Your task to perform on an android device: toggle show notifications on the lock screen Image 0: 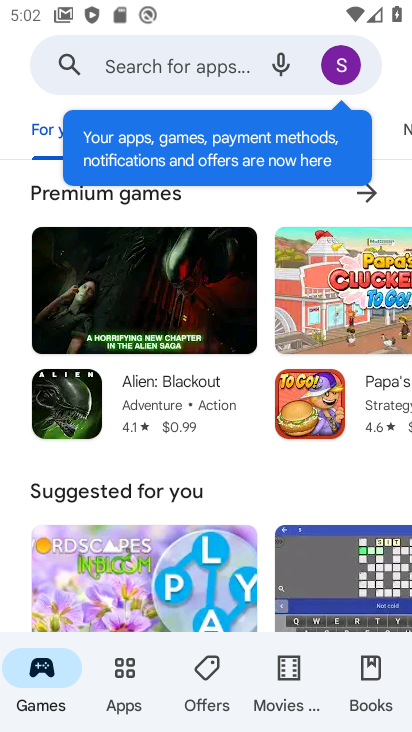
Step 0: press back button
Your task to perform on an android device: toggle show notifications on the lock screen Image 1: 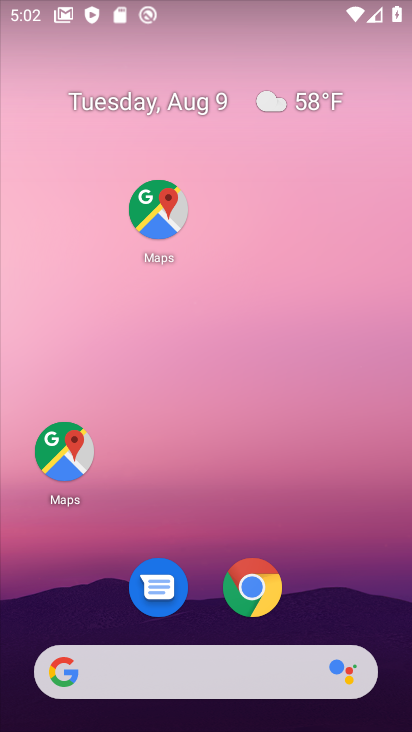
Step 1: drag from (242, 386) to (238, 8)
Your task to perform on an android device: toggle show notifications on the lock screen Image 2: 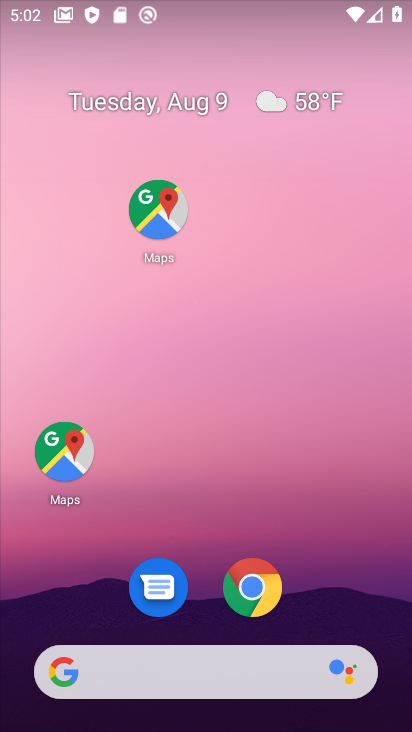
Step 2: drag from (244, 548) to (224, 27)
Your task to perform on an android device: toggle show notifications on the lock screen Image 3: 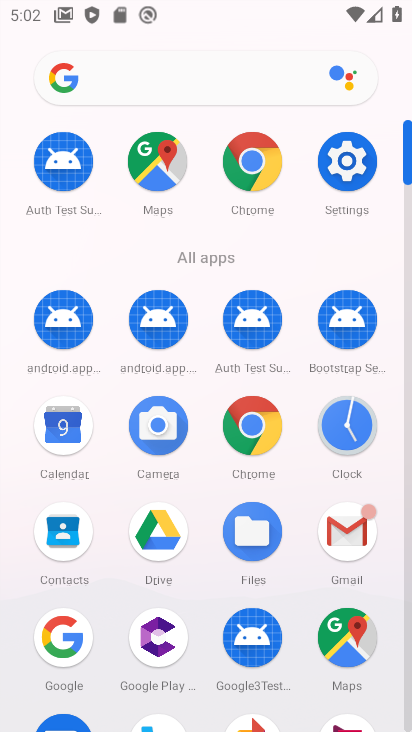
Step 3: drag from (224, 542) to (190, 88)
Your task to perform on an android device: toggle show notifications on the lock screen Image 4: 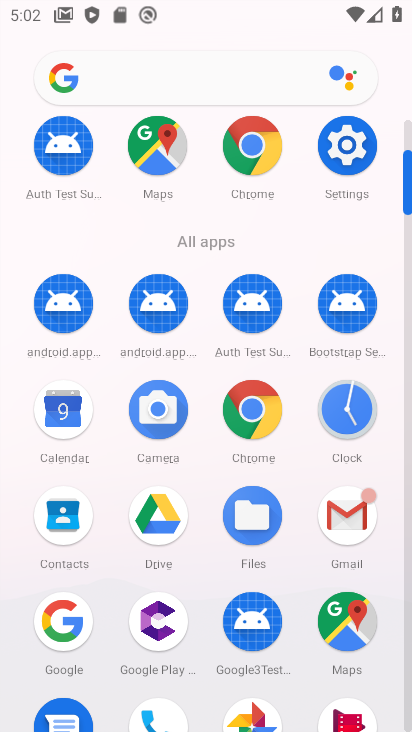
Step 4: click (343, 134)
Your task to perform on an android device: toggle show notifications on the lock screen Image 5: 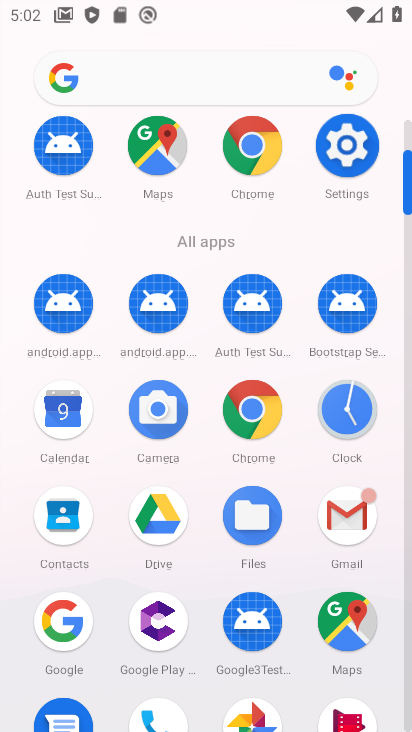
Step 5: click (346, 128)
Your task to perform on an android device: toggle show notifications on the lock screen Image 6: 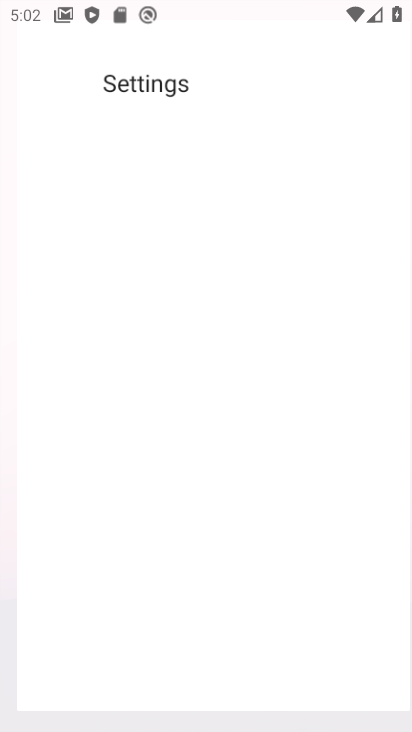
Step 6: click (346, 128)
Your task to perform on an android device: toggle show notifications on the lock screen Image 7: 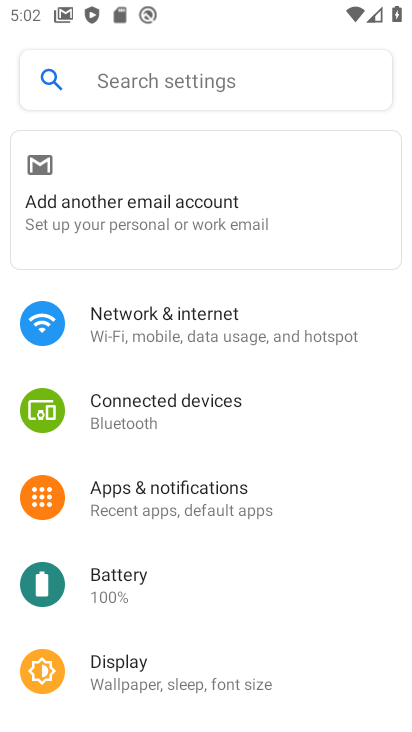
Step 7: click (151, 494)
Your task to perform on an android device: toggle show notifications on the lock screen Image 8: 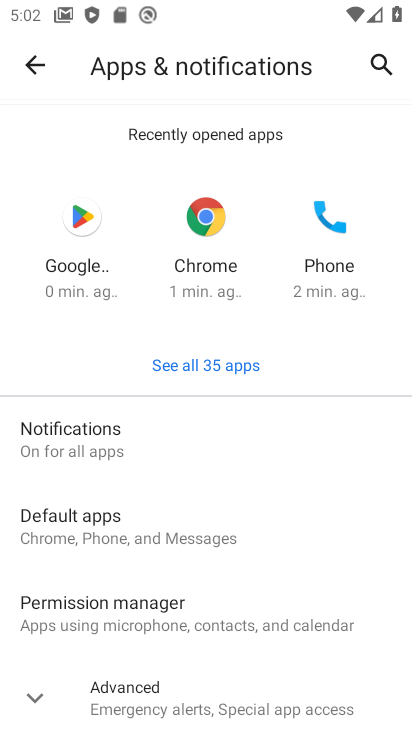
Step 8: click (48, 428)
Your task to perform on an android device: toggle show notifications on the lock screen Image 9: 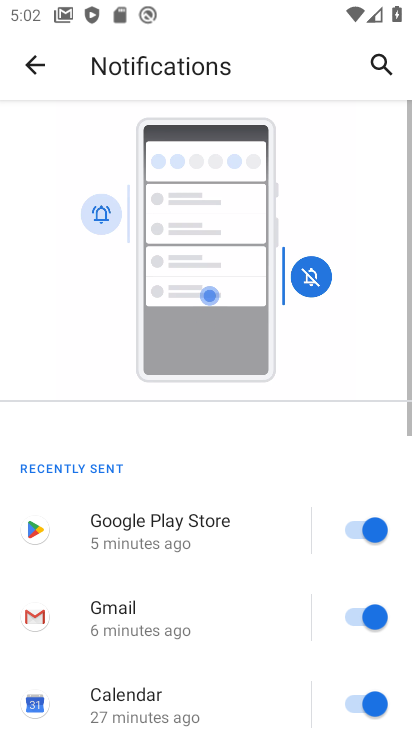
Step 9: drag from (242, 564) to (214, 125)
Your task to perform on an android device: toggle show notifications on the lock screen Image 10: 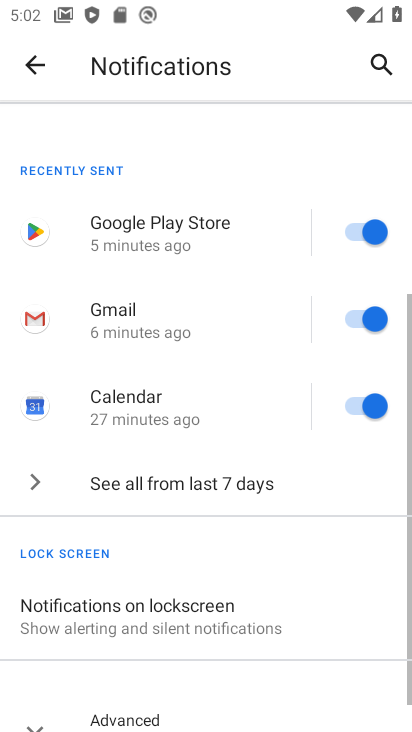
Step 10: drag from (228, 543) to (200, 159)
Your task to perform on an android device: toggle show notifications on the lock screen Image 11: 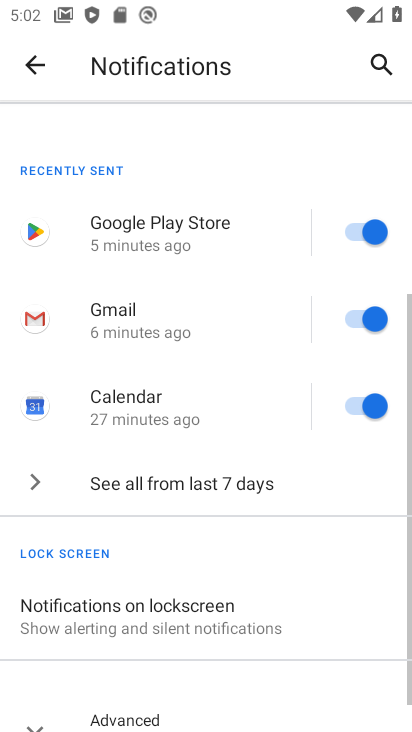
Step 11: drag from (269, 603) to (249, 280)
Your task to perform on an android device: toggle show notifications on the lock screen Image 12: 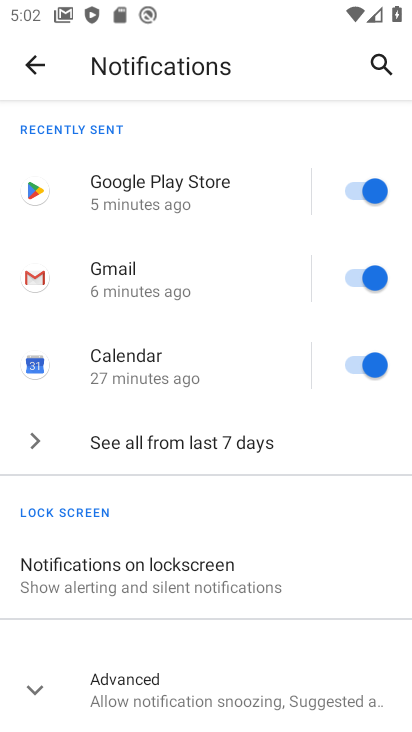
Step 12: click (142, 571)
Your task to perform on an android device: toggle show notifications on the lock screen Image 13: 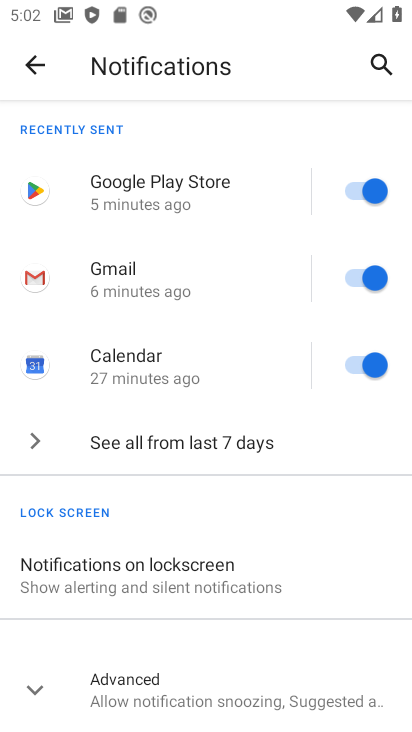
Step 13: click (142, 571)
Your task to perform on an android device: toggle show notifications on the lock screen Image 14: 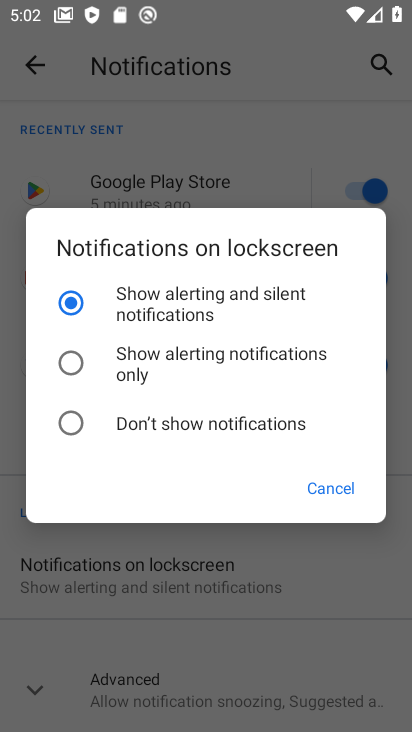
Step 14: click (141, 570)
Your task to perform on an android device: toggle show notifications on the lock screen Image 15: 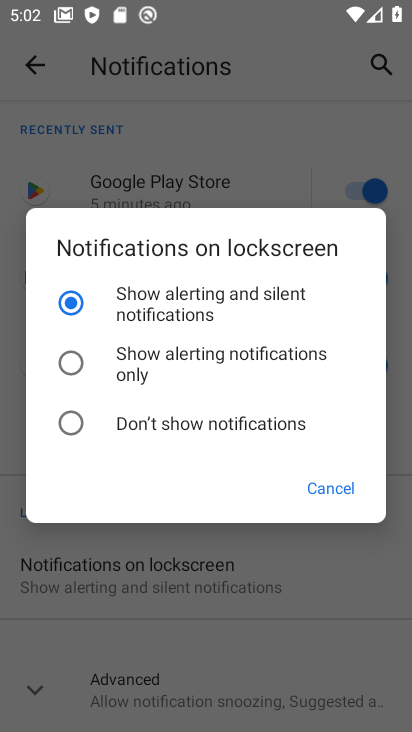
Step 15: click (141, 570)
Your task to perform on an android device: toggle show notifications on the lock screen Image 16: 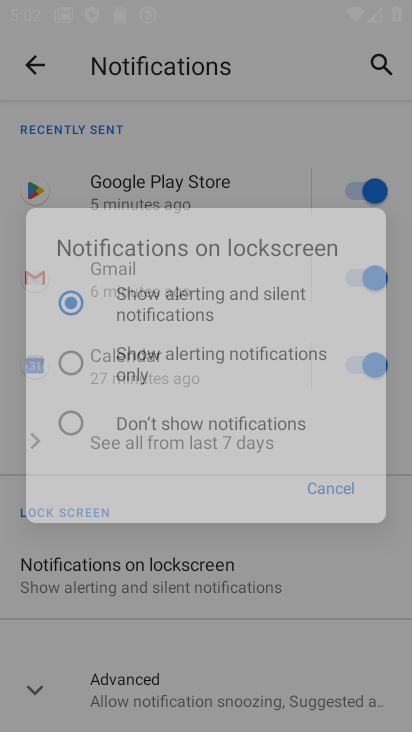
Step 16: click (143, 571)
Your task to perform on an android device: toggle show notifications on the lock screen Image 17: 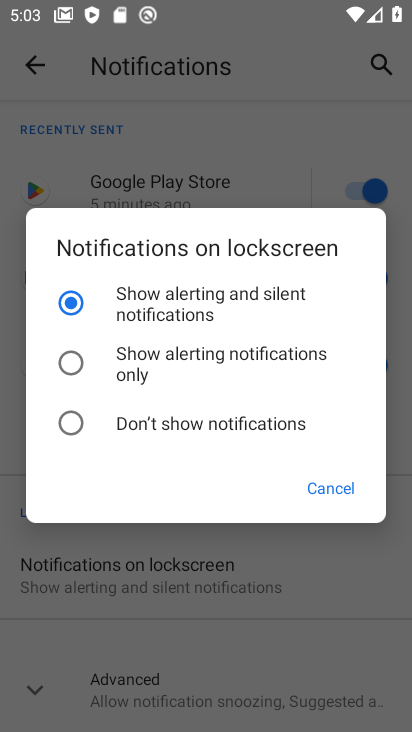
Step 17: click (73, 389)
Your task to perform on an android device: toggle show notifications on the lock screen Image 18: 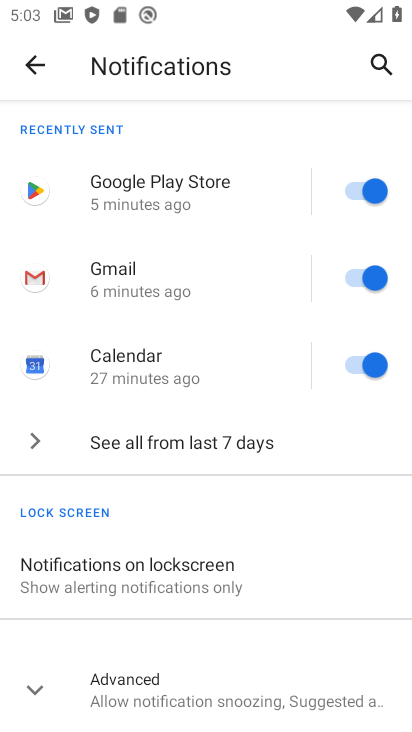
Step 18: click (126, 576)
Your task to perform on an android device: toggle show notifications on the lock screen Image 19: 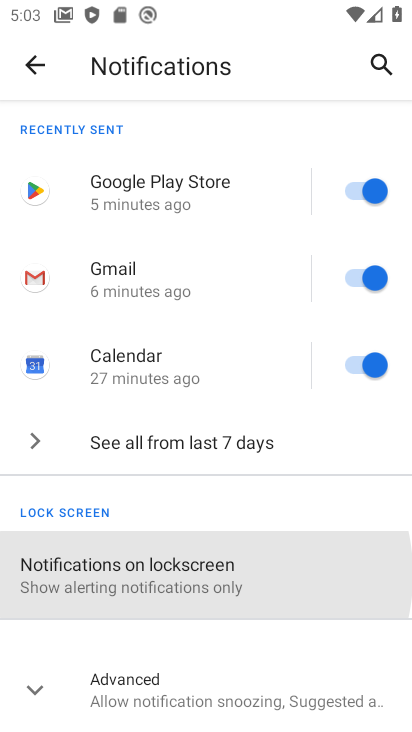
Step 19: click (125, 577)
Your task to perform on an android device: toggle show notifications on the lock screen Image 20: 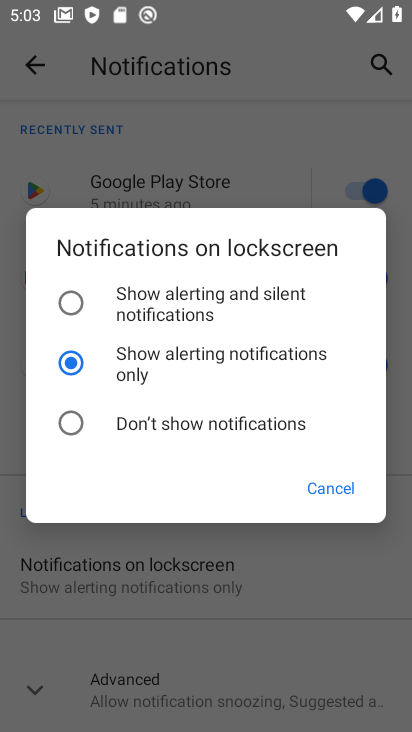
Step 20: click (127, 578)
Your task to perform on an android device: toggle show notifications on the lock screen Image 21: 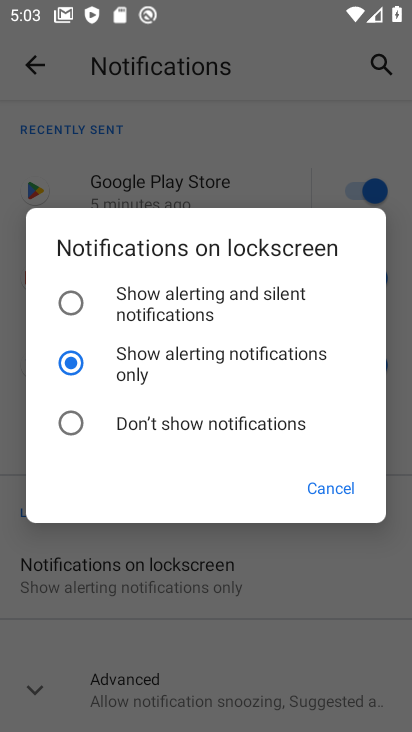
Step 21: click (61, 293)
Your task to perform on an android device: toggle show notifications on the lock screen Image 22: 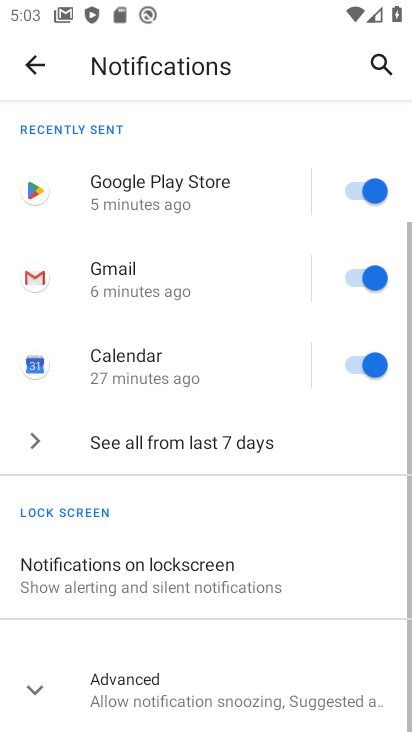
Step 22: task complete